Your task to perform on an android device: open app "YouTube Kids" Image 0: 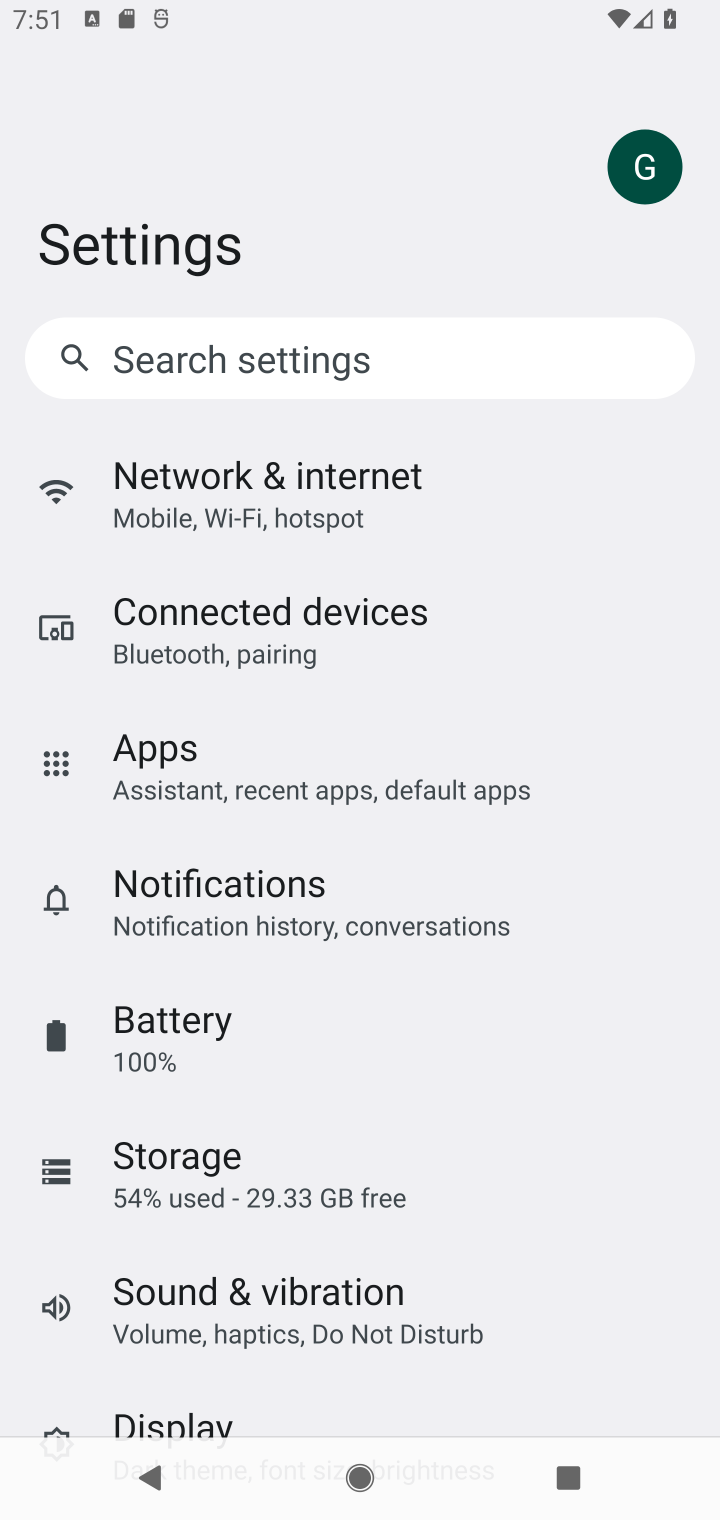
Step 0: press home button
Your task to perform on an android device: open app "YouTube Kids" Image 1: 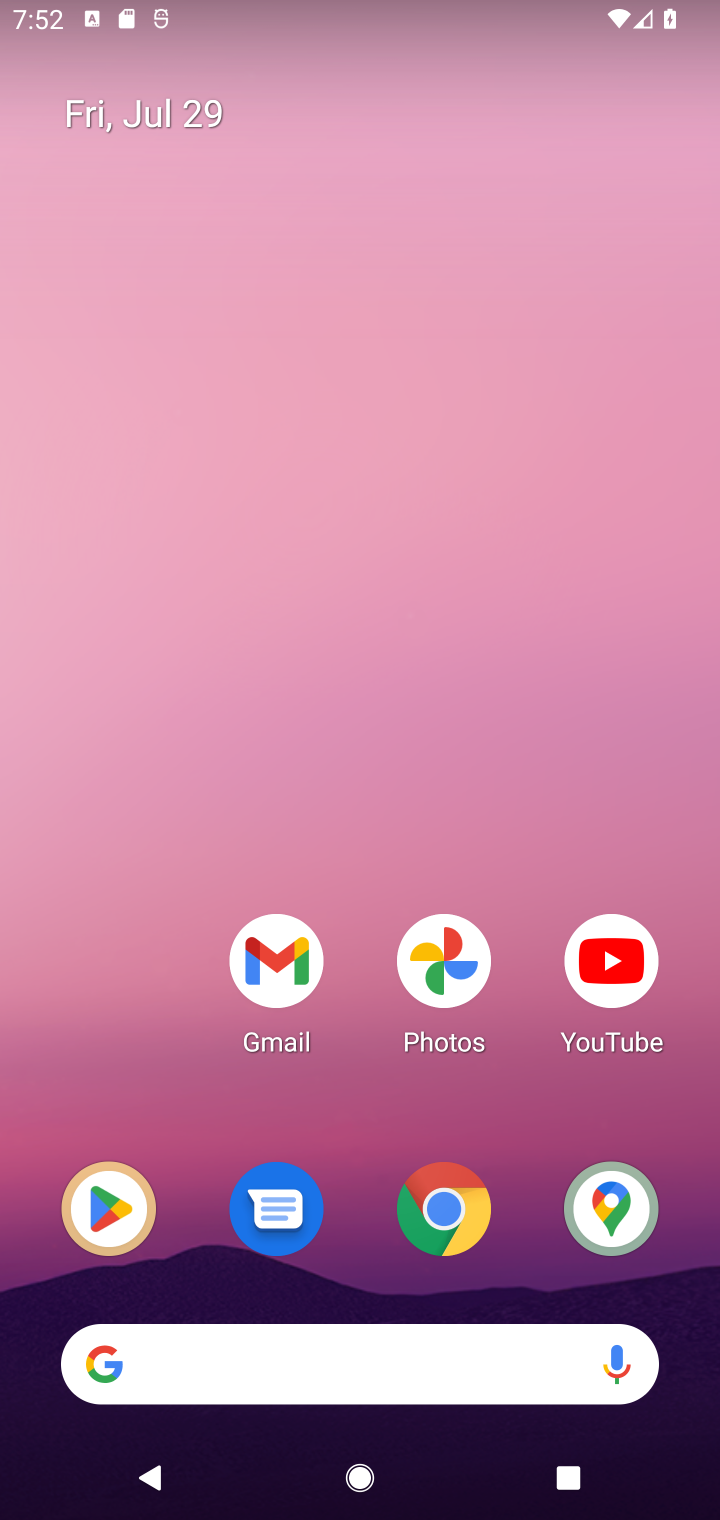
Step 1: click (112, 1202)
Your task to perform on an android device: open app "YouTube Kids" Image 2: 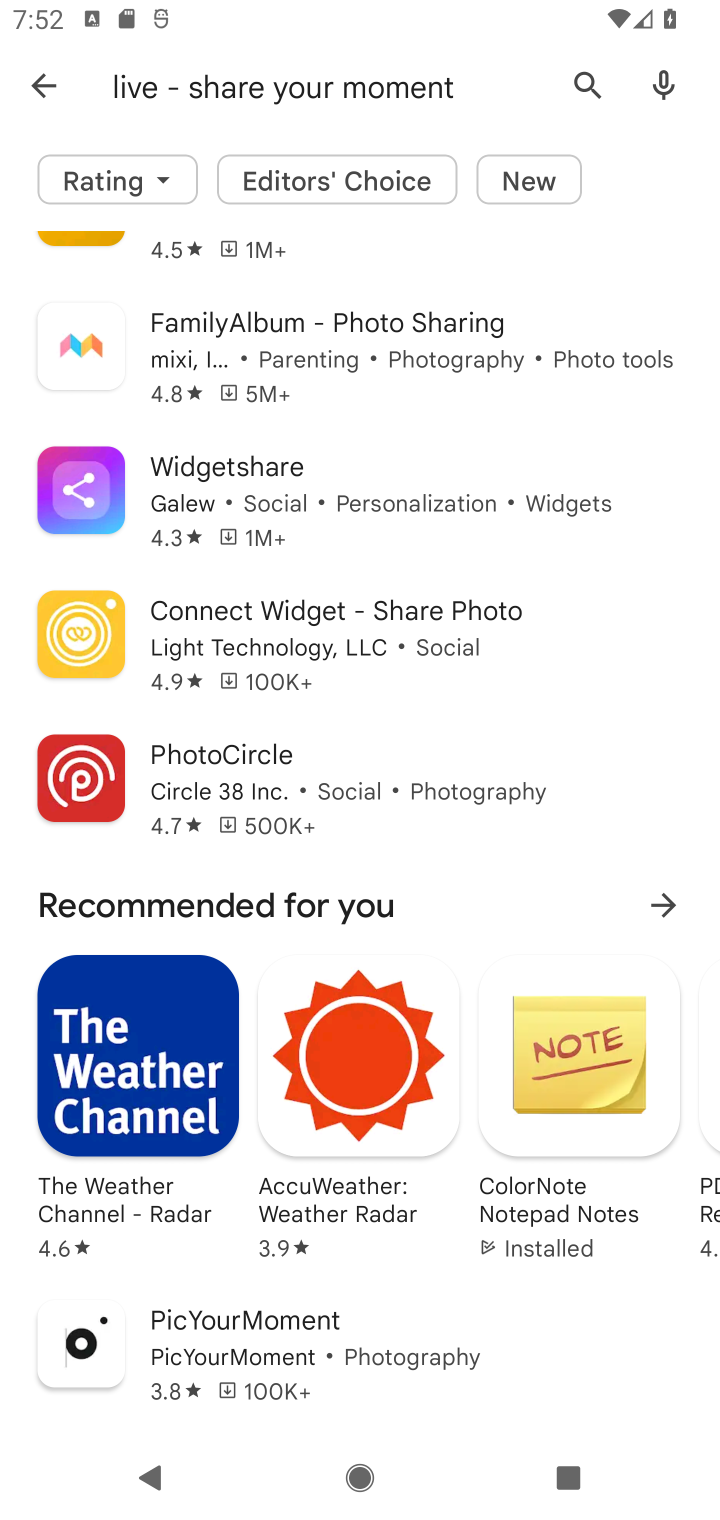
Step 2: click (554, 70)
Your task to perform on an android device: open app "YouTube Kids" Image 3: 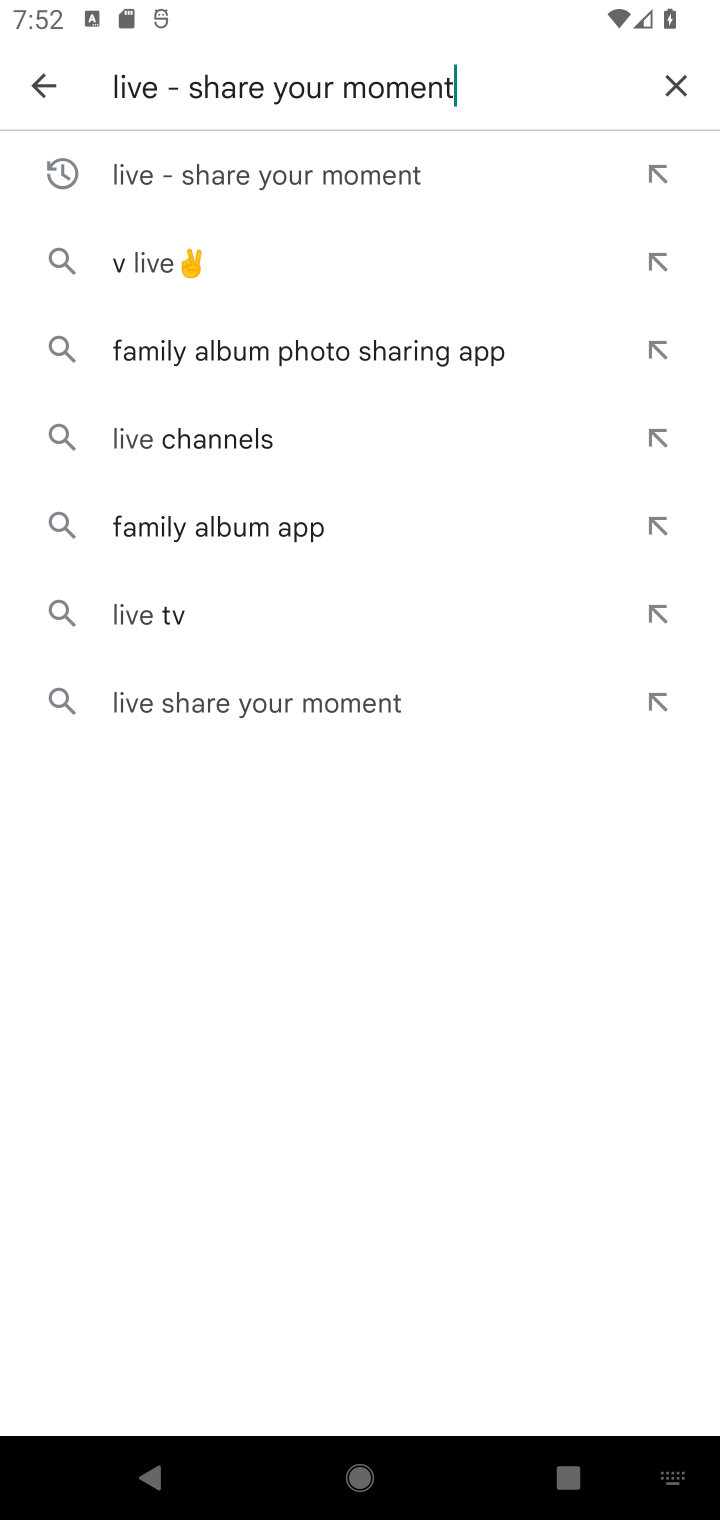
Step 3: click (654, 84)
Your task to perform on an android device: open app "YouTube Kids" Image 4: 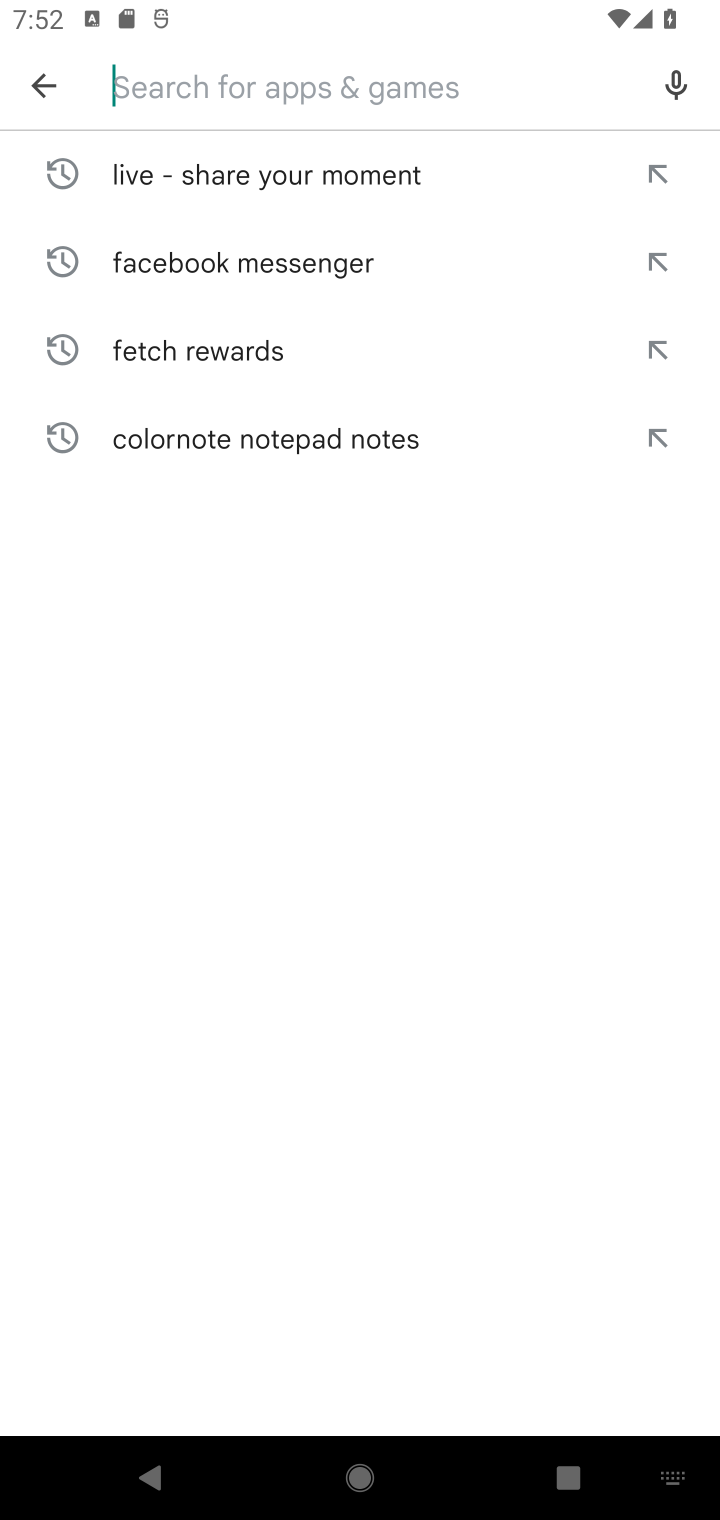
Step 4: type "YouTube Kids"
Your task to perform on an android device: open app "YouTube Kids" Image 5: 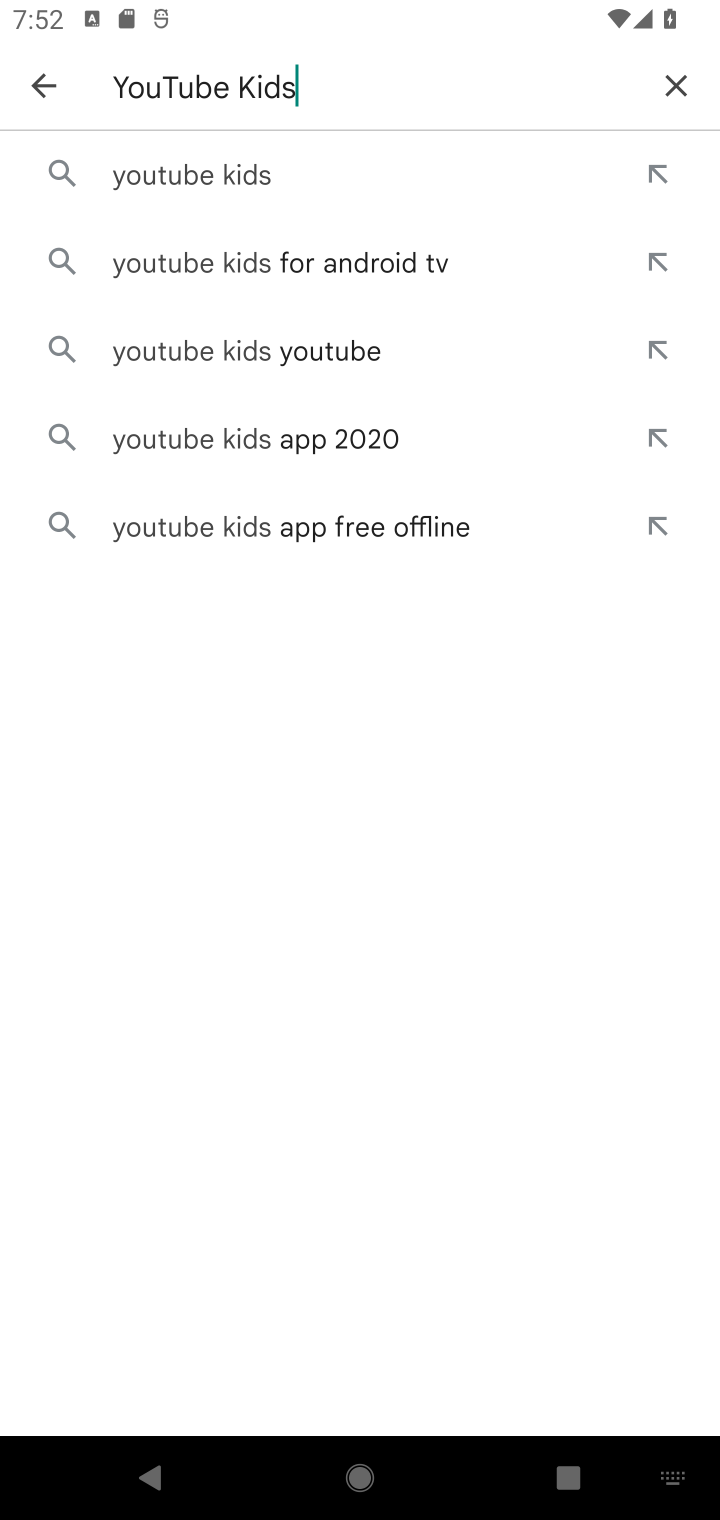
Step 5: click (230, 193)
Your task to perform on an android device: open app "YouTube Kids" Image 6: 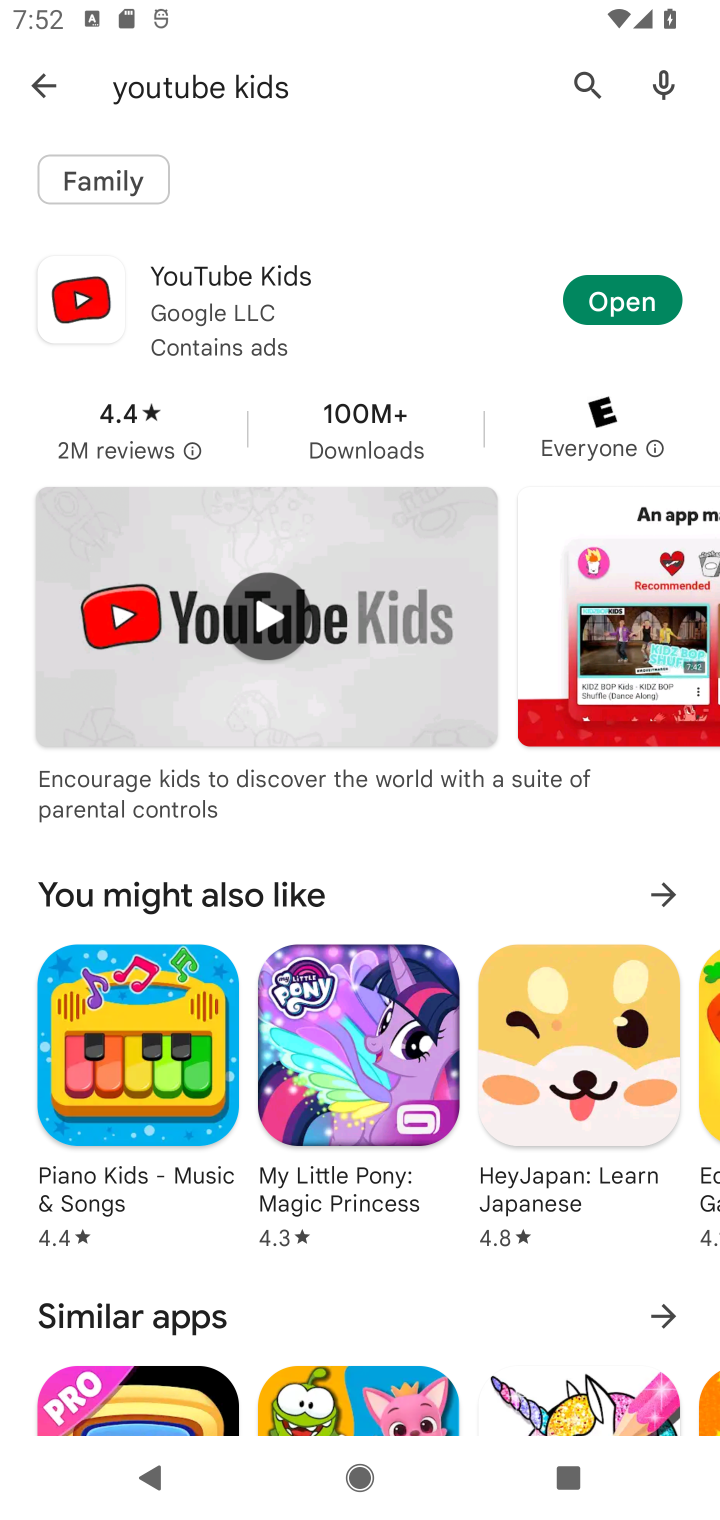
Step 6: click (626, 301)
Your task to perform on an android device: open app "YouTube Kids" Image 7: 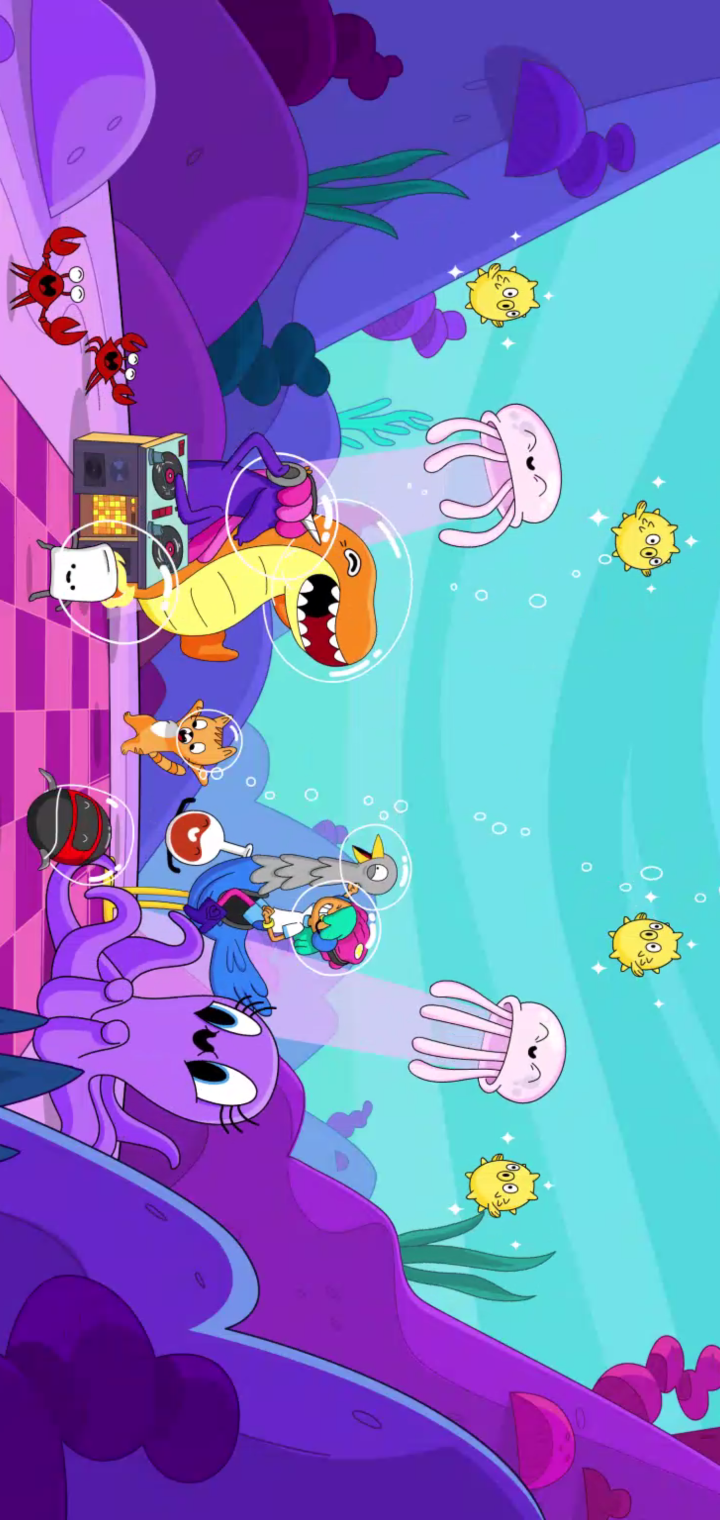
Step 7: task complete